Your task to perform on an android device: uninstall "McDonald's" Image 0: 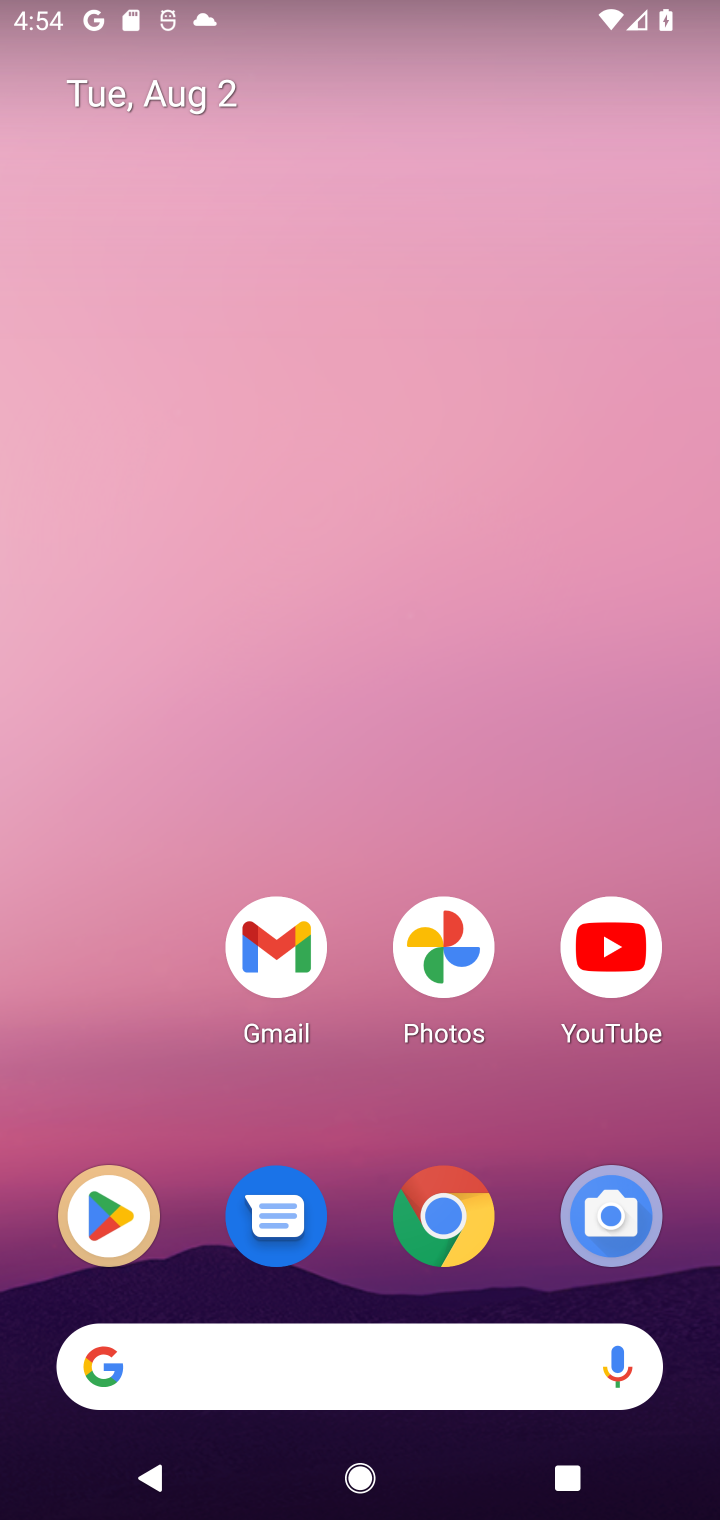
Step 0: click (136, 1220)
Your task to perform on an android device: uninstall "McDonald's" Image 1: 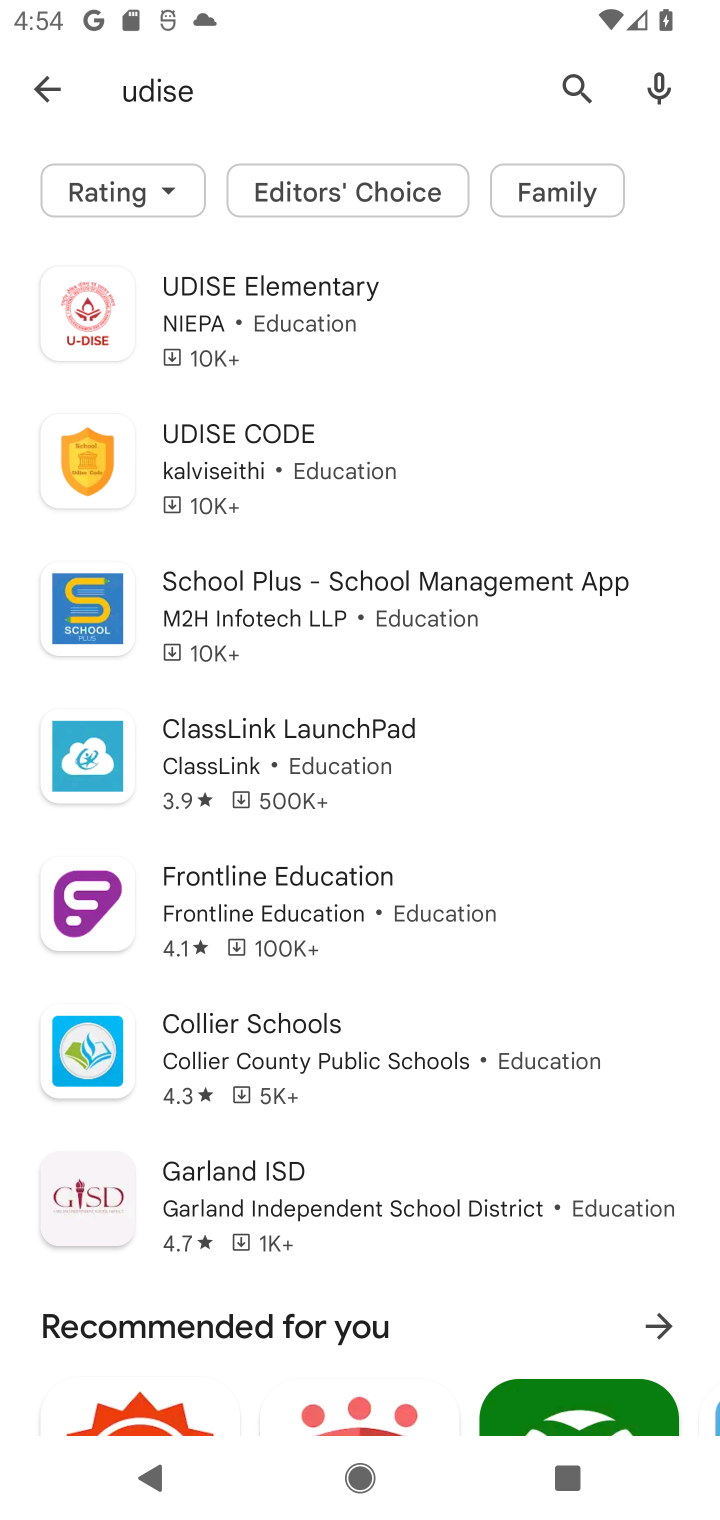
Step 1: click (559, 76)
Your task to perform on an android device: uninstall "McDonald's" Image 2: 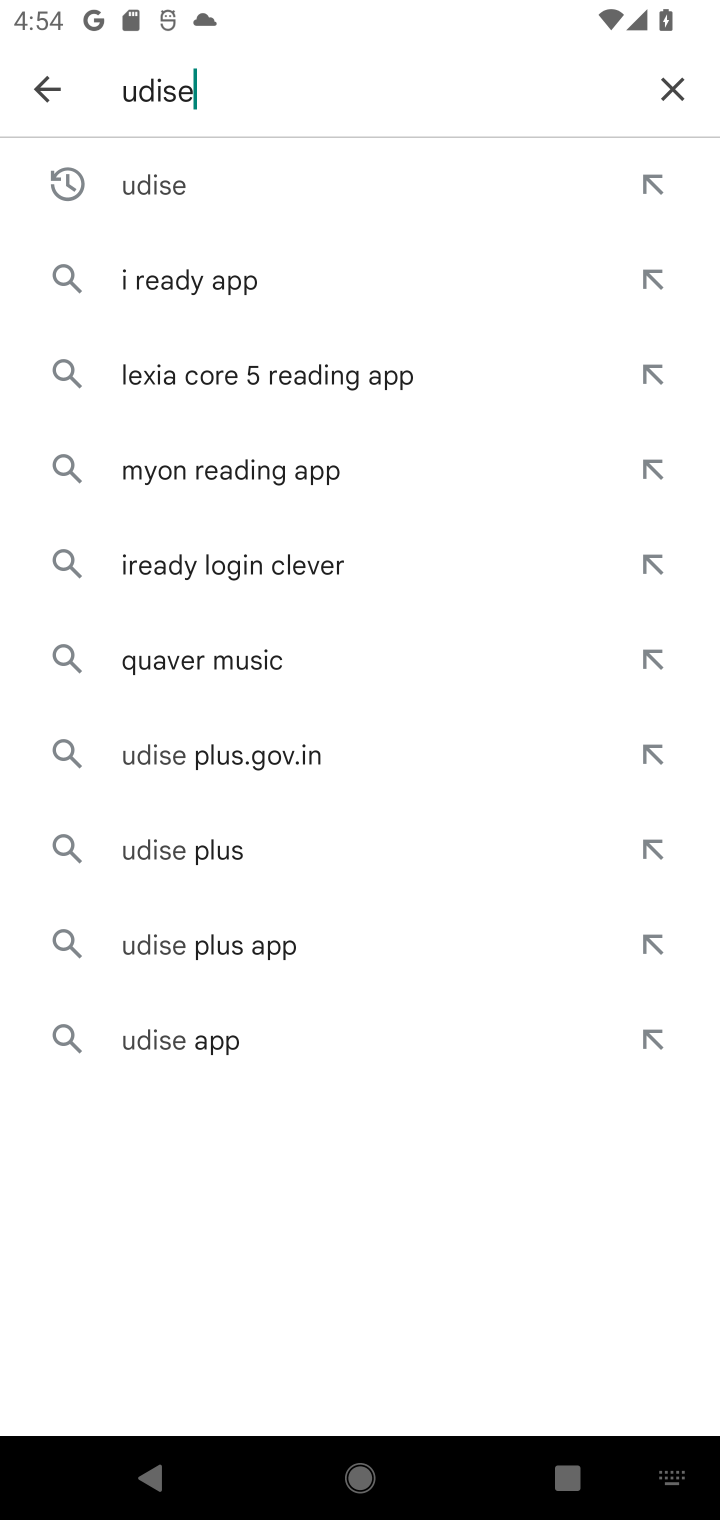
Step 2: click (672, 105)
Your task to perform on an android device: uninstall "McDonald's" Image 3: 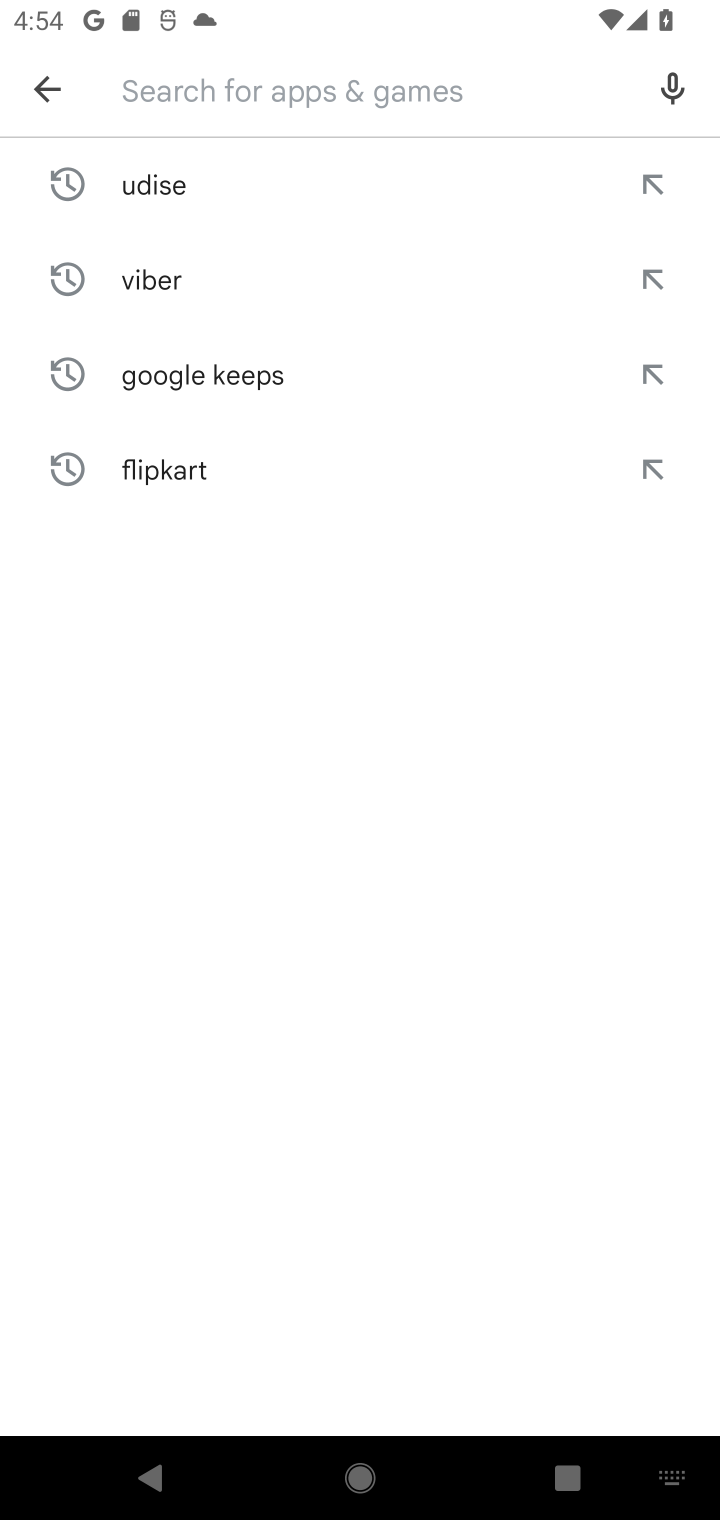
Step 3: type "mcdoland"
Your task to perform on an android device: uninstall "McDonald's" Image 4: 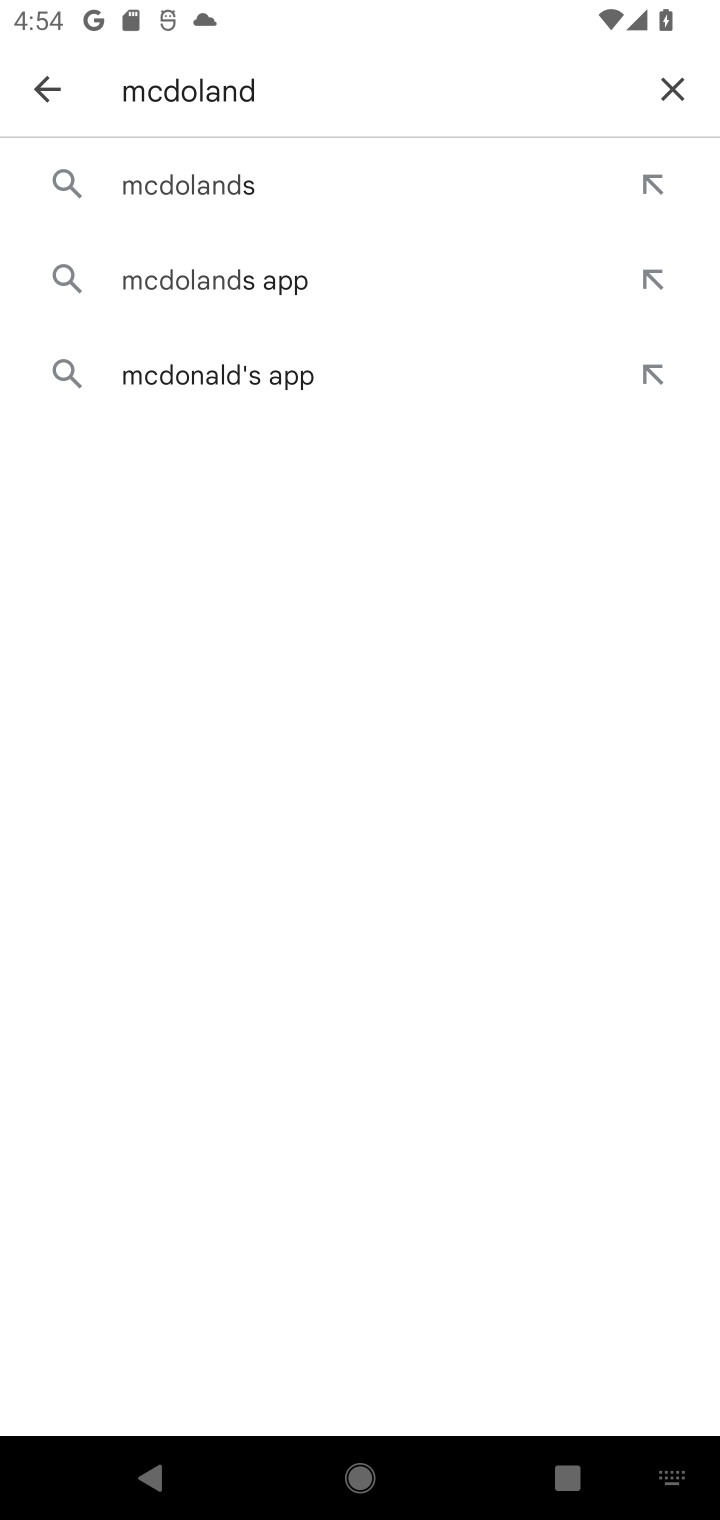
Step 4: click (503, 201)
Your task to perform on an android device: uninstall "McDonald's" Image 5: 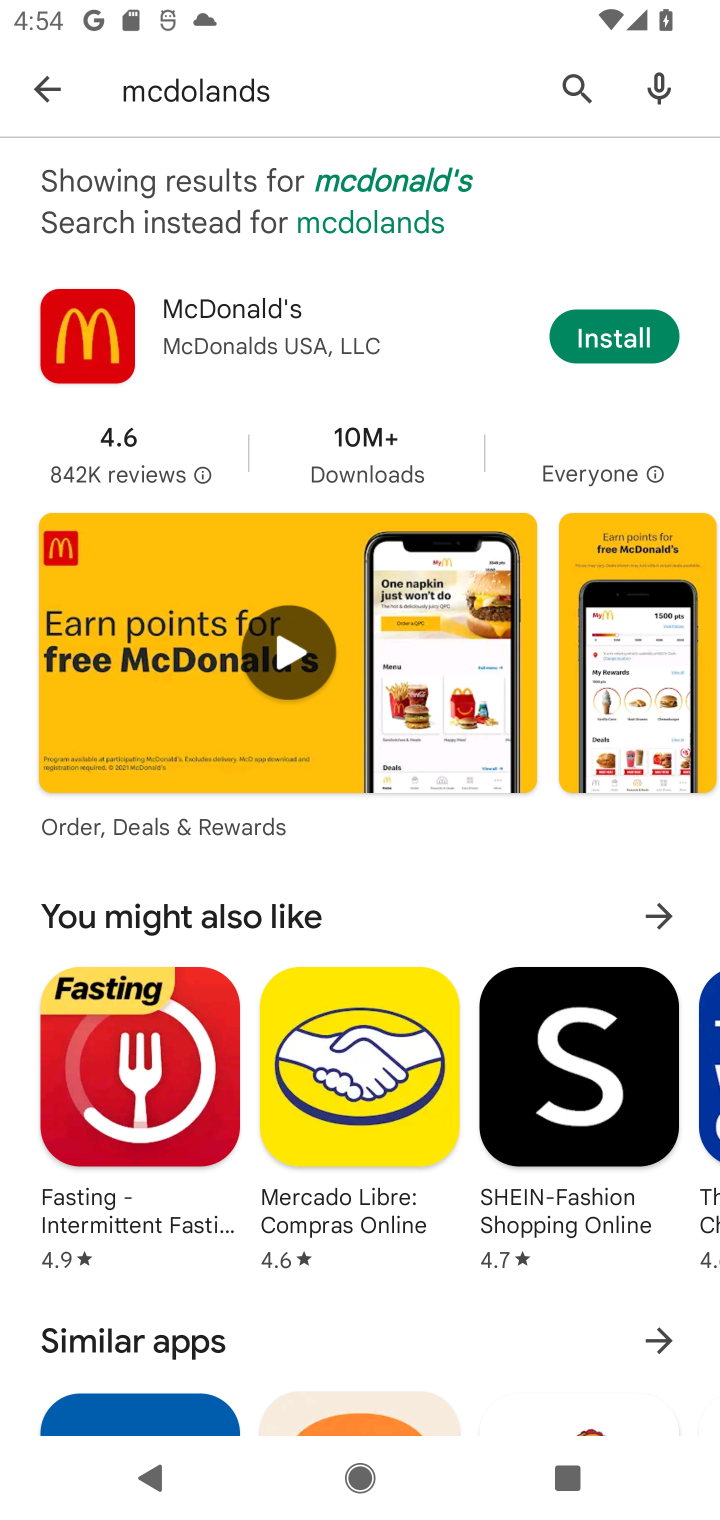
Step 5: click (580, 340)
Your task to perform on an android device: uninstall "McDonald's" Image 6: 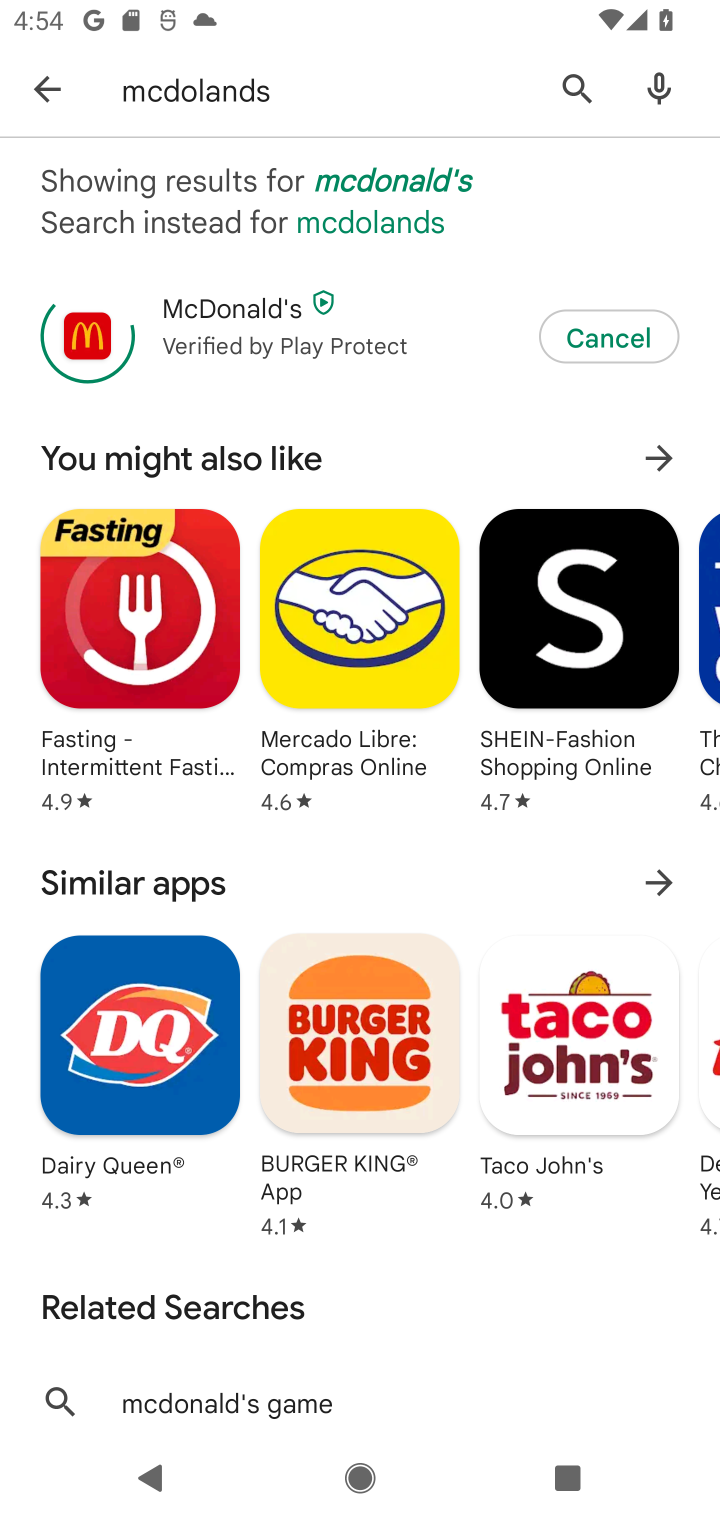
Step 6: task complete